Your task to perform on an android device: Go to internet settings Image 0: 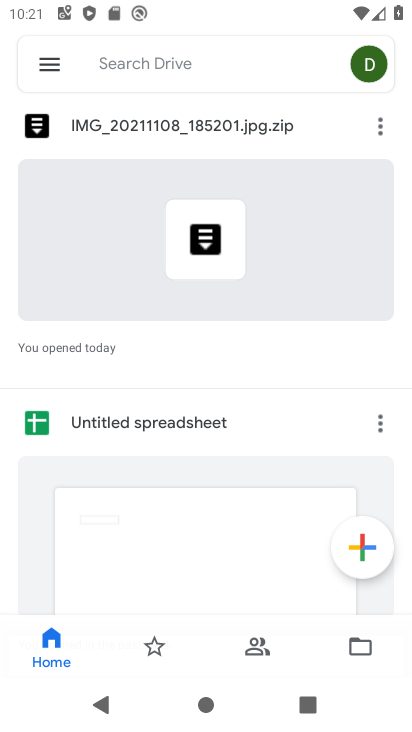
Step 0: press home button
Your task to perform on an android device: Go to internet settings Image 1: 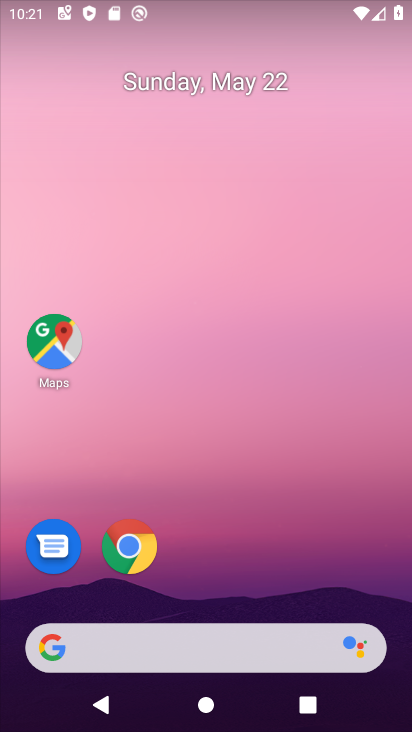
Step 1: drag from (207, 455) to (248, 1)
Your task to perform on an android device: Go to internet settings Image 2: 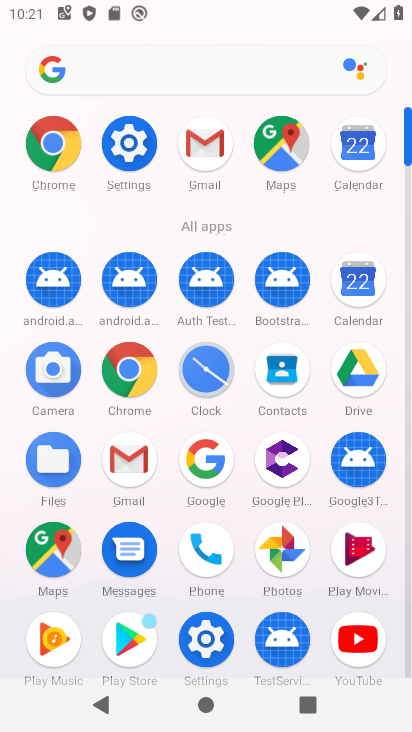
Step 2: click (124, 148)
Your task to perform on an android device: Go to internet settings Image 3: 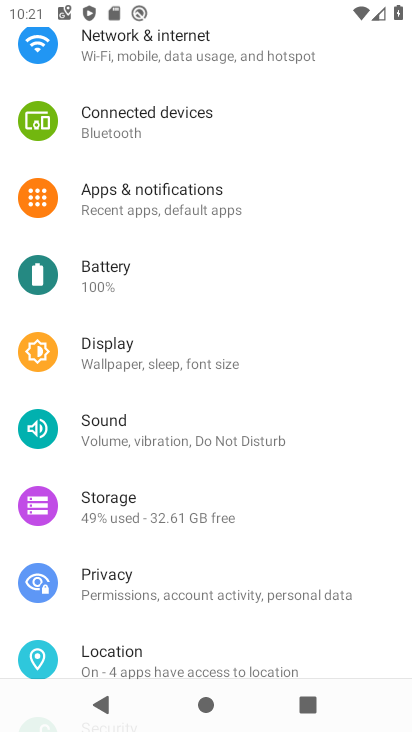
Step 3: click (190, 60)
Your task to perform on an android device: Go to internet settings Image 4: 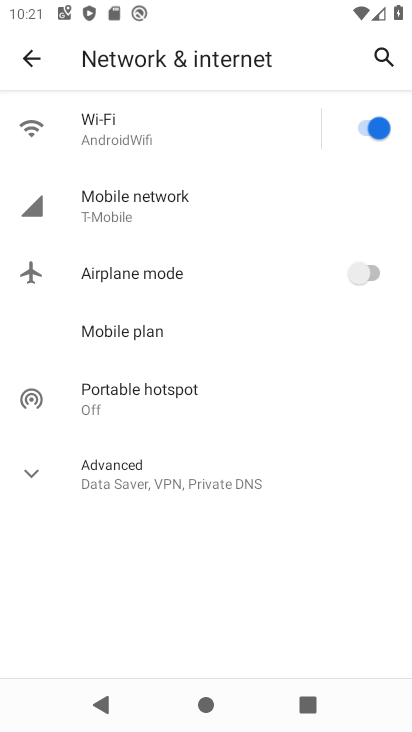
Step 4: task complete